Your task to perform on an android device: move an email to a new category in the gmail app Image 0: 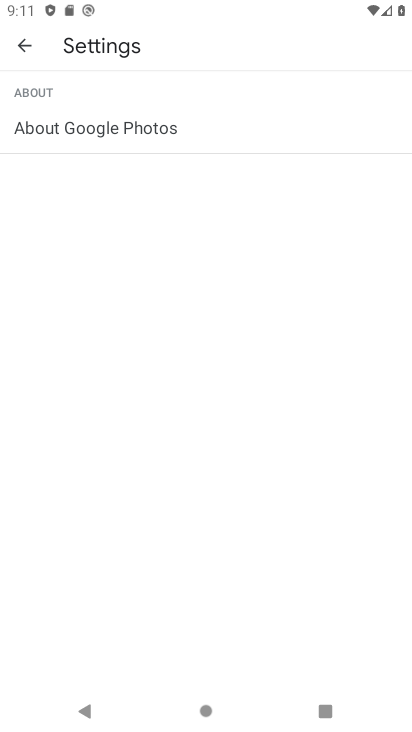
Step 0: press home button
Your task to perform on an android device: move an email to a new category in the gmail app Image 1: 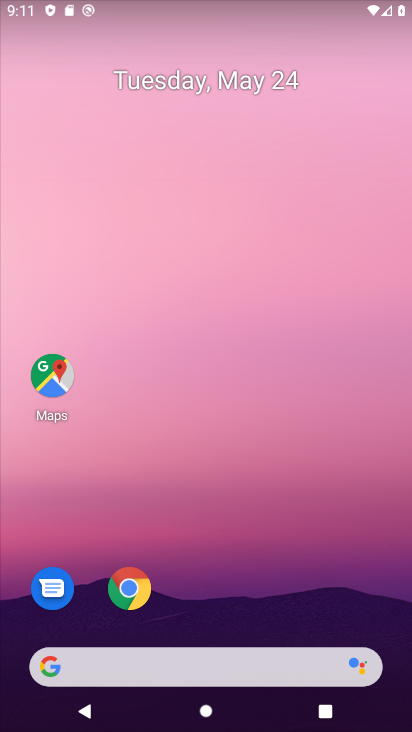
Step 1: drag from (189, 621) to (269, 22)
Your task to perform on an android device: move an email to a new category in the gmail app Image 2: 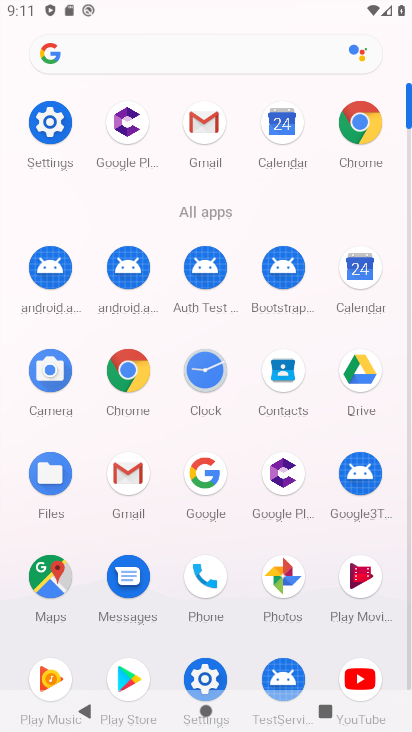
Step 2: click (206, 120)
Your task to perform on an android device: move an email to a new category in the gmail app Image 3: 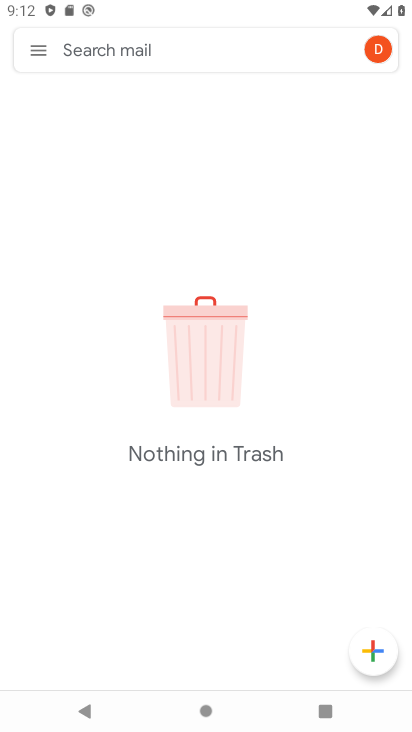
Step 3: click (45, 38)
Your task to perform on an android device: move an email to a new category in the gmail app Image 4: 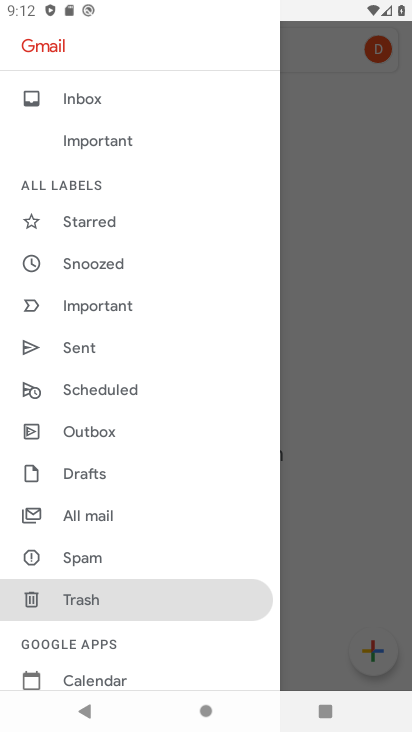
Step 4: click (91, 503)
Your task to perform on an android device: move an email to a new category in the gmail app Image 5: 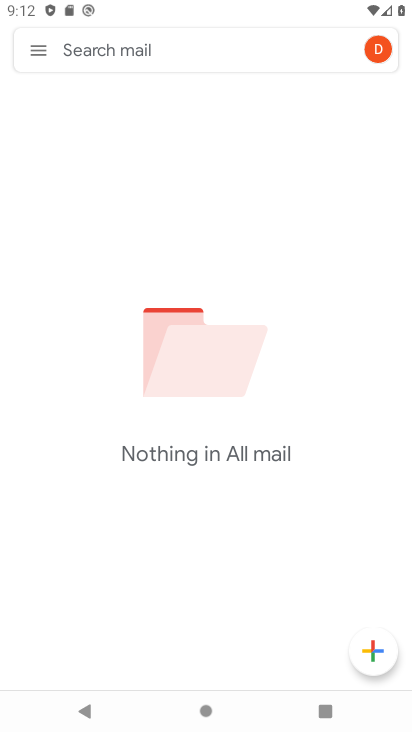
Step 5: task complete